Your task to perform on an android device: Open Reddit.com Image 0: 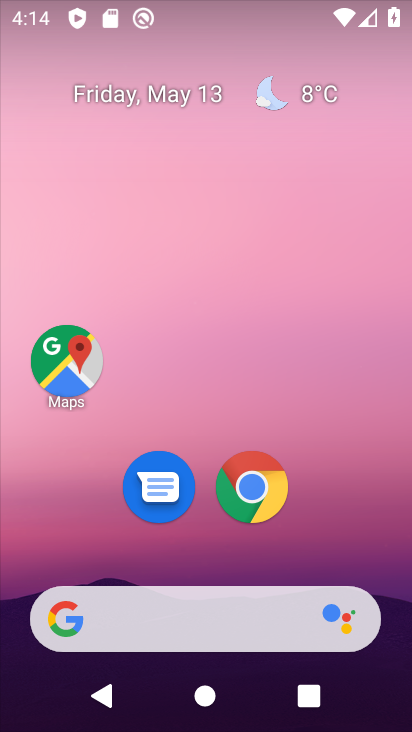
Step 0: click (252, 511)
Your task to perform on an android device: Open Reddit.com Image 1: 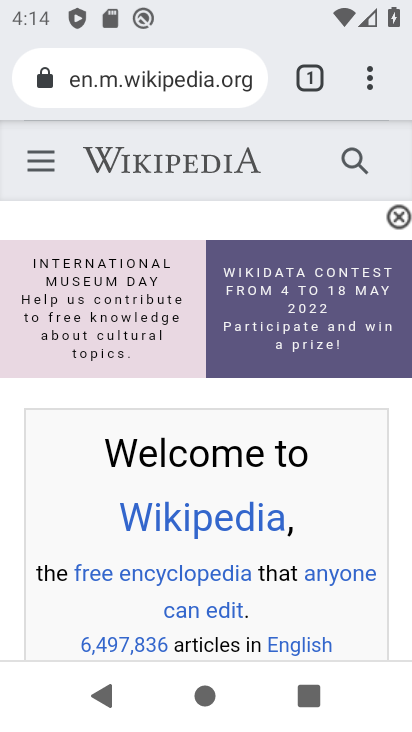
Step 1: click (212, 84)
Your task to perform on an android device: Open Reddit.com Image 2: 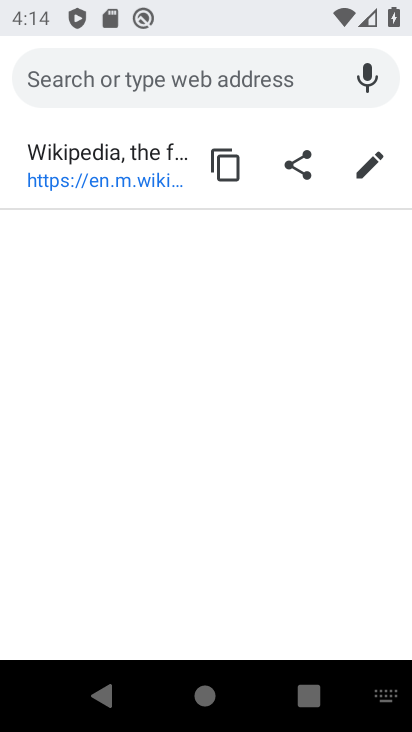
Step 2: type "reddit"
Your task to perform on an android device: Open Reddit.com Image 3: 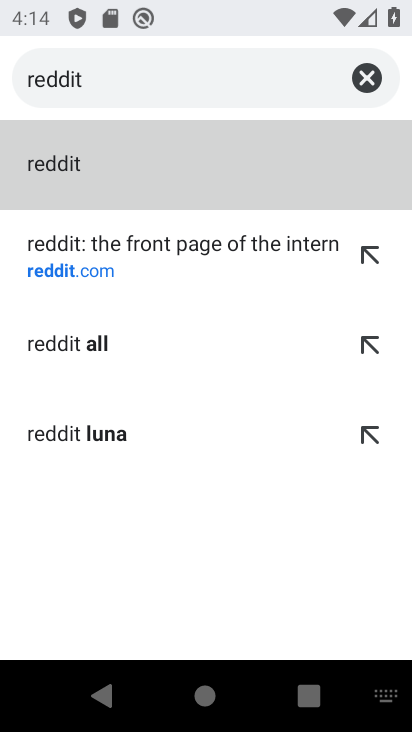
Step 3: click (200, 281)
Your task to perform on an android device: Open Reddit.com Image 4: 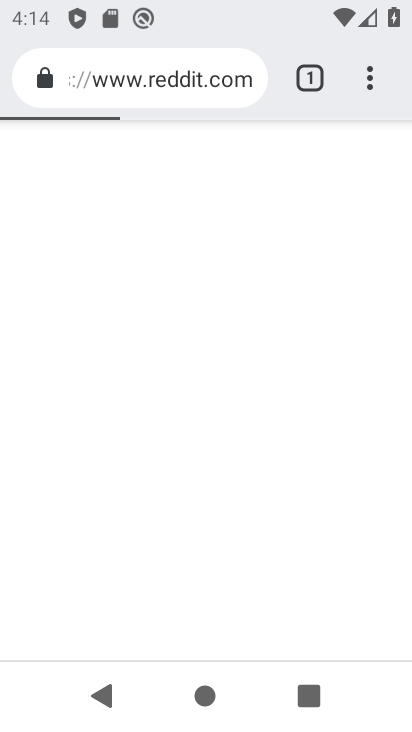
Step 4: task complete